Your task to perform on an android device: Open privacy settings Image 0: 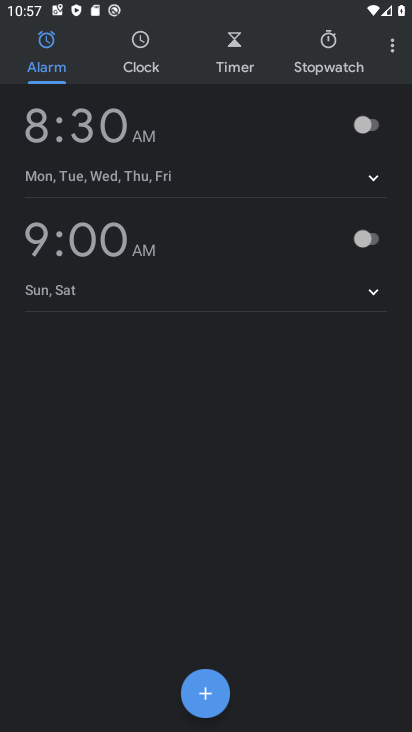
Step 0: press home button
Your task to perform on an android device: Open privacy settings Image 1: 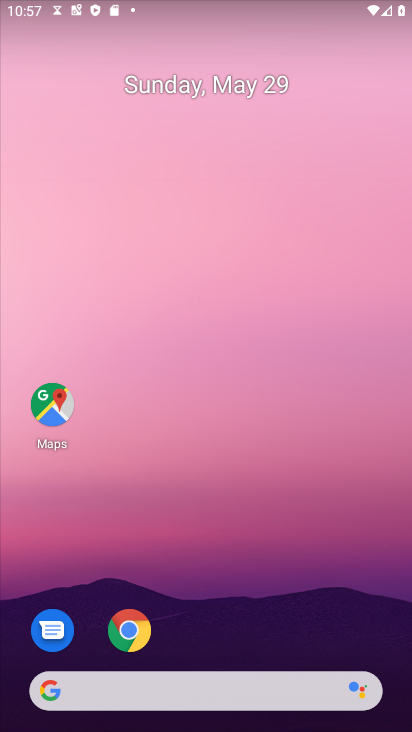
Step 1: drag from (257, 630) to (286, 91)
Your task to perform on an android device: Open privacy settings Image 2: 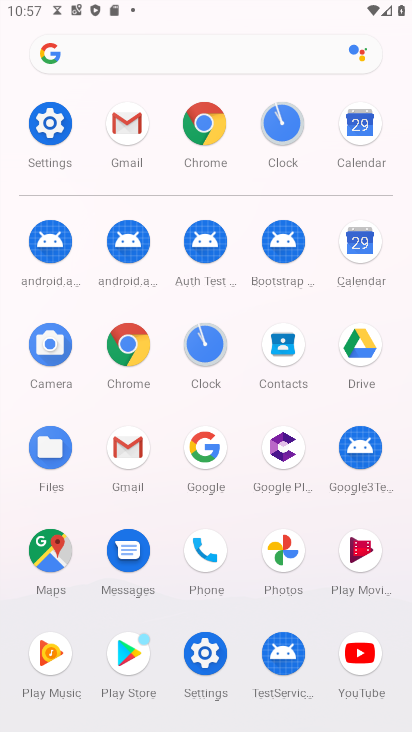
Step 2: click (40, 99)
Your task to perform on an android device: Open privacy settings Image 3: 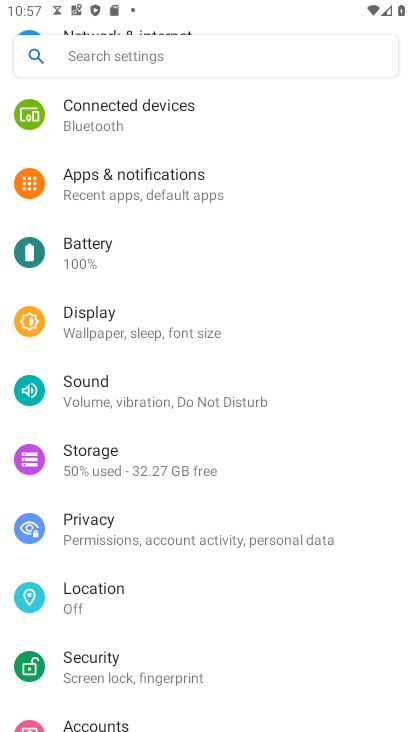
Step 3: click (52, 525)
Your task to perform on an android device: Open privacy settings Image 4: 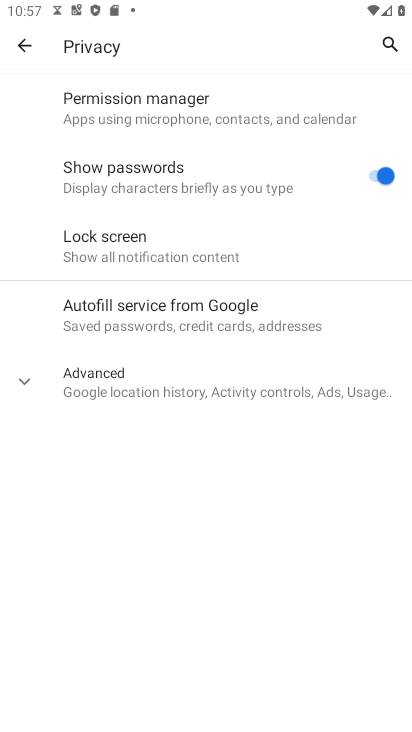
Step 4: task complete